Your task to perform on an android device: turn on airplane mode Image 0: 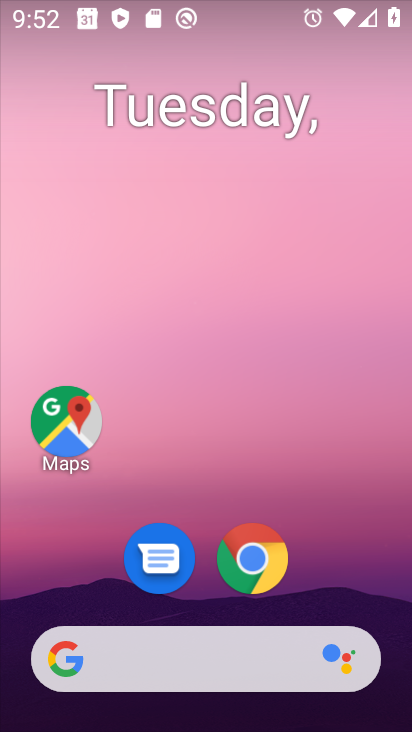
Step 0: drag from (337, 536) to (153, 130)
Your task to perform on an android device: turn on airplane mode Image 1: 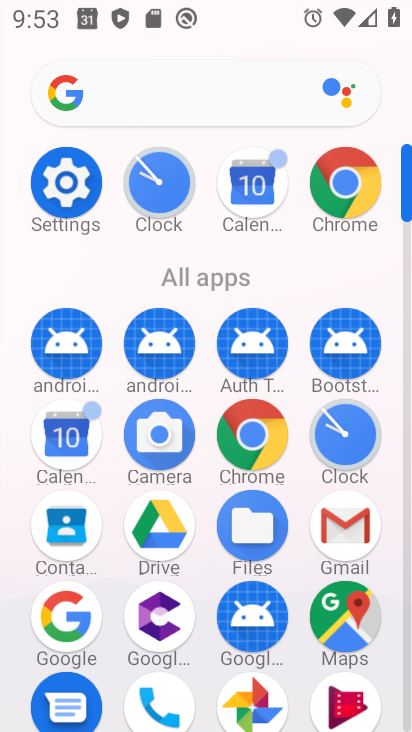
Step 1: click (70, 182)
Your task to perform on an android device: turn on airplane mode Image 2: 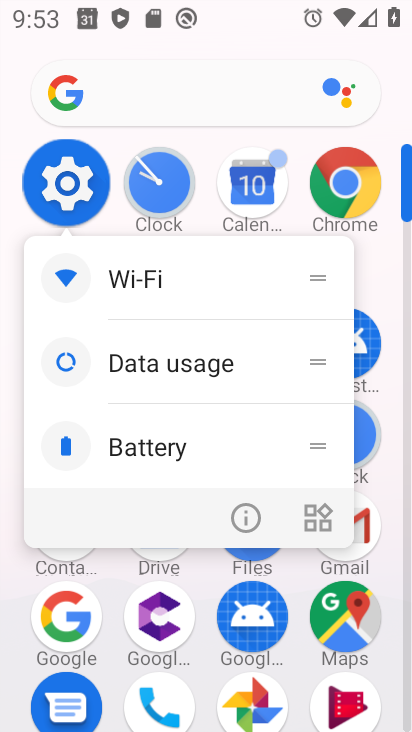
Step 2: click (70, 182)
Your task to perform on an android device: turn on airplane mode Image 3: 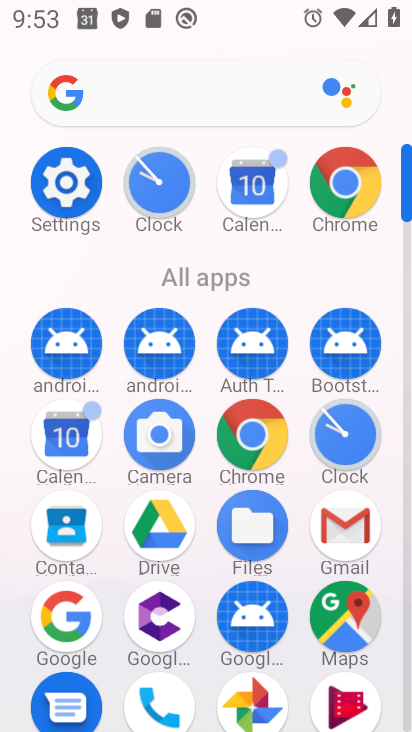
Step 3: click (70, 182)
Your task to perform on an android device: turn on airplane mode Image 4: 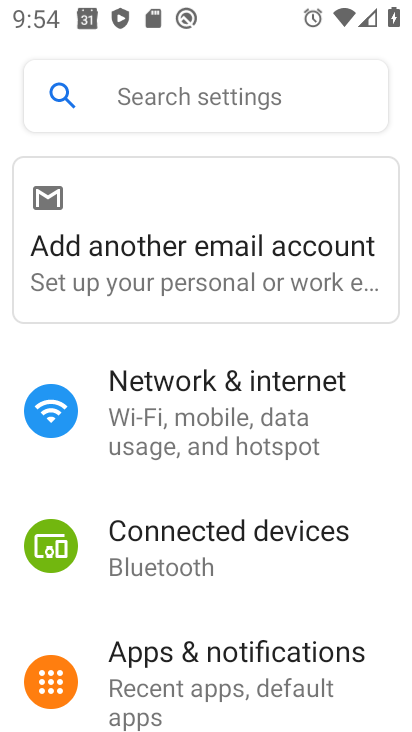
Step 4: drag from (213, 561) to (211, 136)
Your task to perform on an android device: turn on airplane mode Image 5: 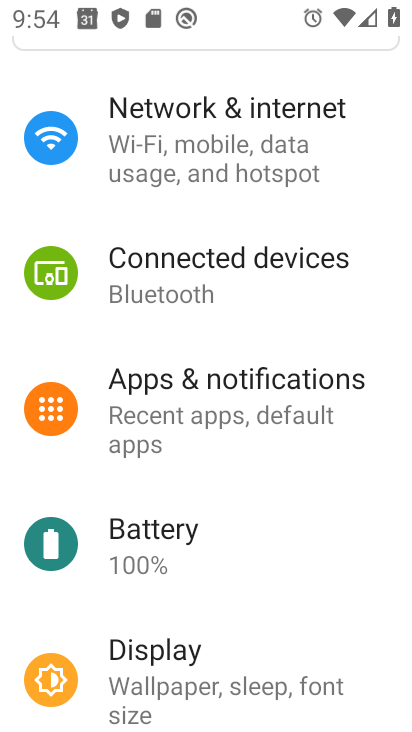
Step 5: drag from (267, 450) to (181, 188)
Your task to perform on an android device: turn on airplane mode Image 6: 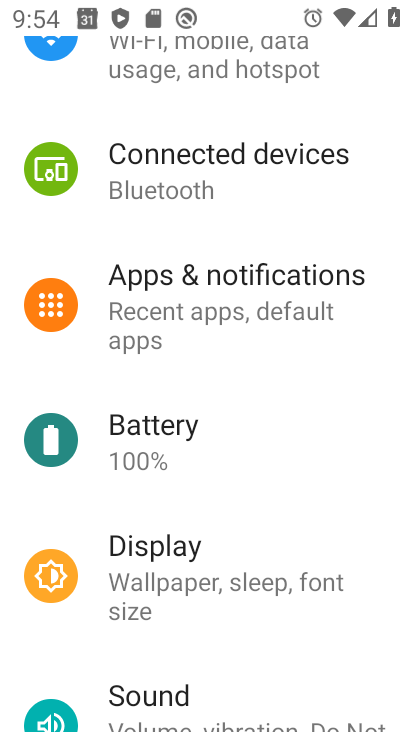
Step 6: drag from (199, 361) to (163, 118)
Your task to perform on an android device: turn on airplane mode Image 7: 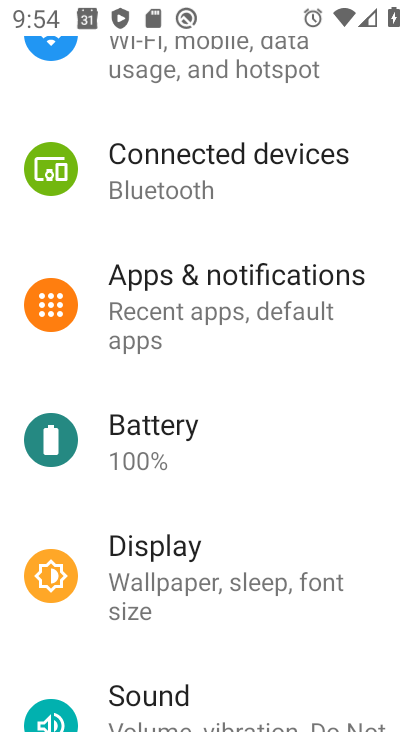
Step 7: drag from (174, 192) to (230, 455)
Your task to perform on an android device: turn on airplane mode Image 8: 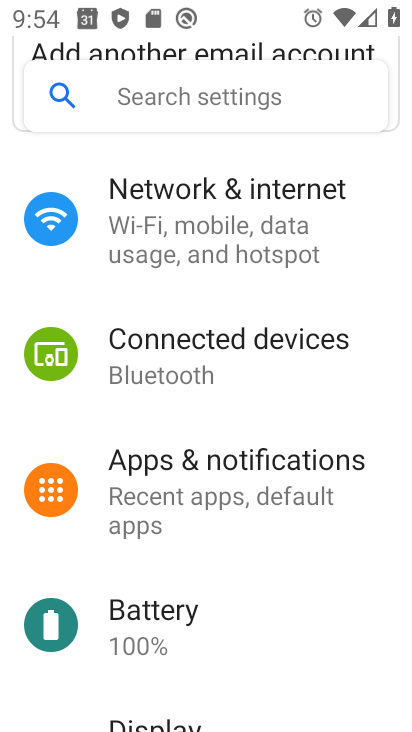
Step 8: drag from (154, 177) to (187, 421)
Your task to perform on an android device: turn on airplane mode Image 9: 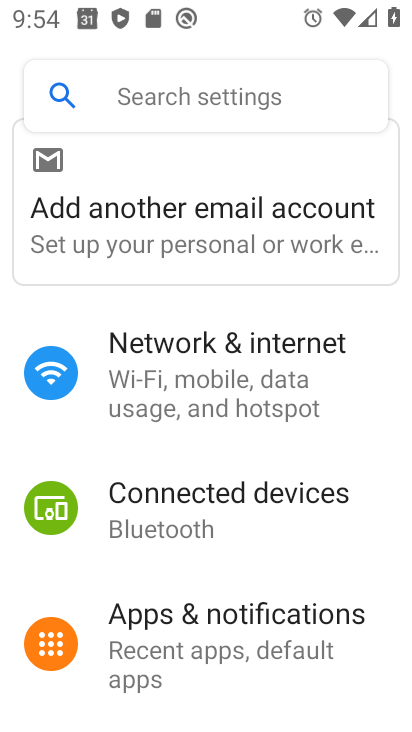
Step 9: drag from (194, 570) to (175, 134)
Your task to perform on an android device: turn on airplane mode Image 10: 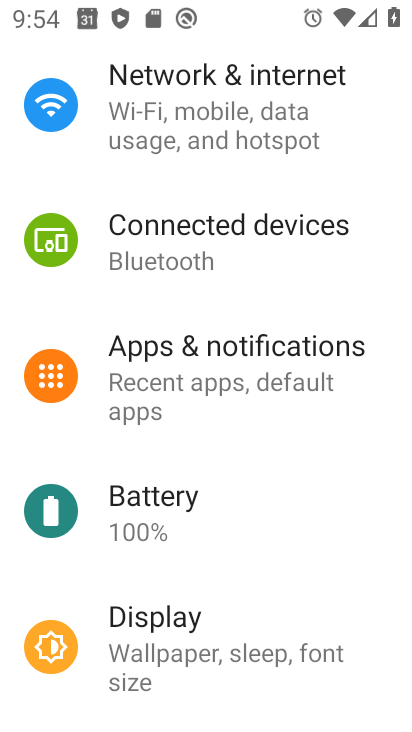
Step 10: click (197, 124)
Your task to perform on an android device: turn on airplane mode Image 11: 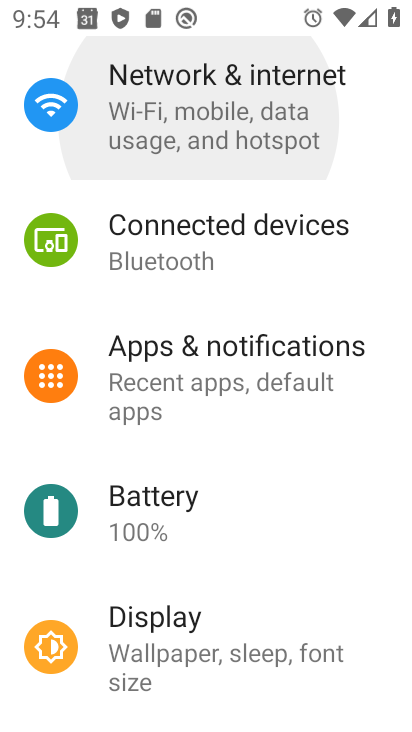
Step 11: click (198, 123)
Your task to perform on an android device: turn on airplane mode Image 12: 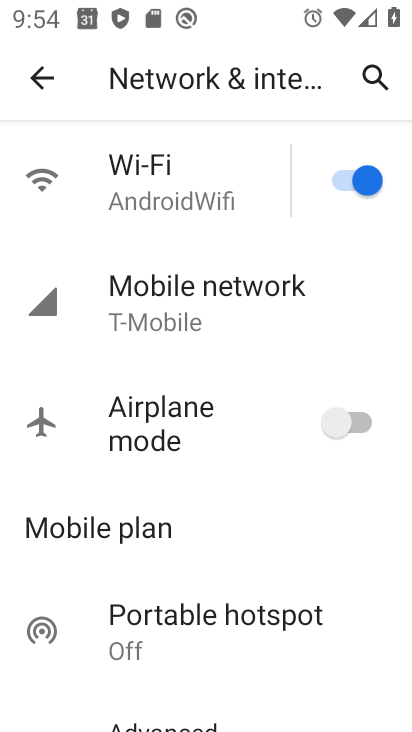
Step 12: click (335, 423)
Your task to perform on an android device: turn on airplane mode Image 13: 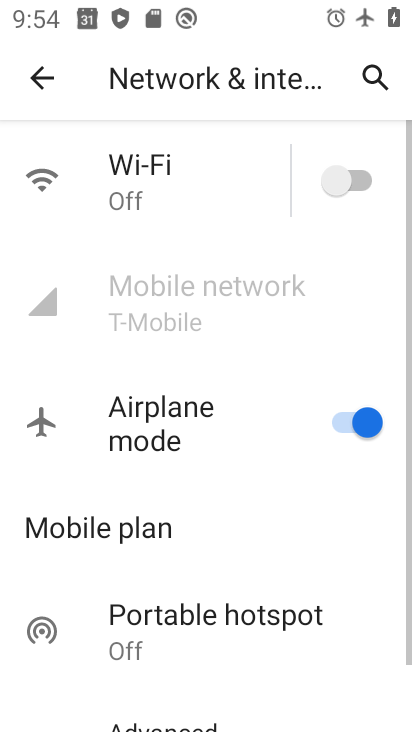
Step 13: task complete